Your task to perform on an android device: Open calendar and show me the fourth week of next month Image 0: 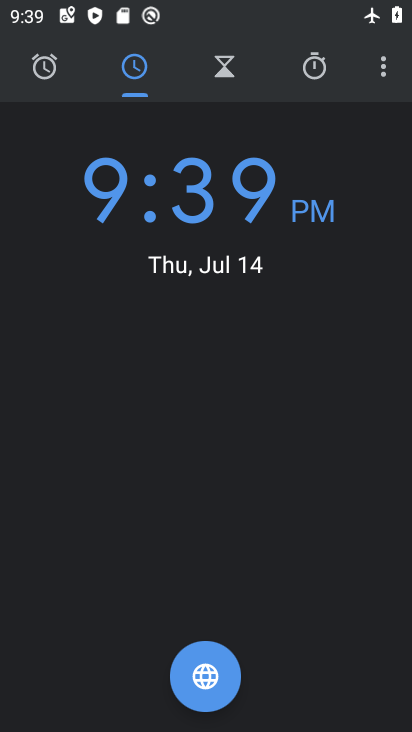
Step 0: press home button
Your task to perform on an android device: Open calendar and show me the fourth week of next month Image 1: 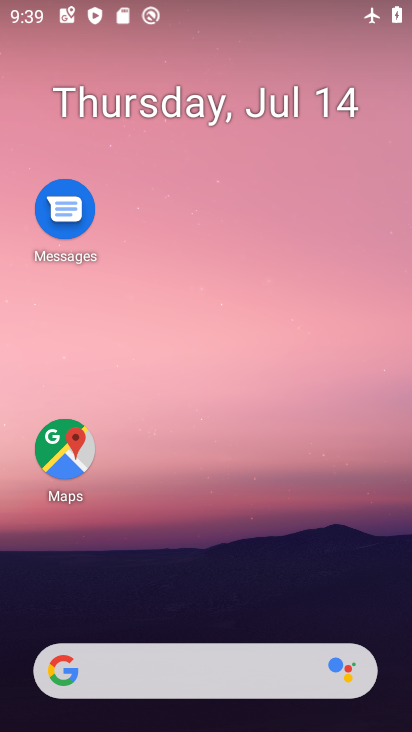
Step 1: drag from (198, 613) to (125, 121)
Your task to perform on an android device: Open calendar and show me the fourth week of next month Image 2: 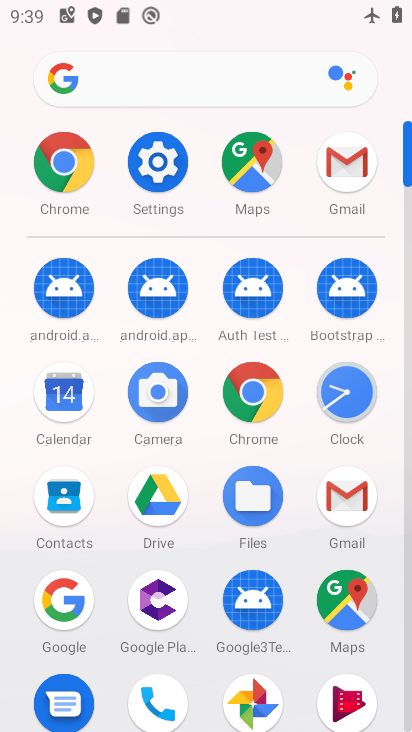
Step 2: click (157, 143)
Your task to perform on an android device: Open calendar and show me the fourth week of next month Image 3: 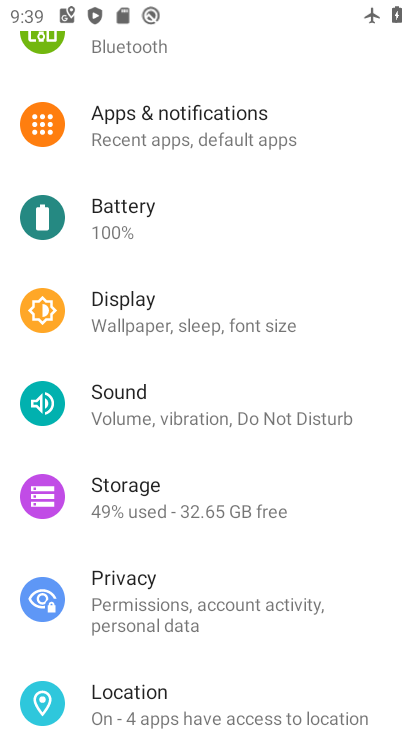
Step 3: press home button
Your task to perform on an android device: Open calendar and show me the fourth week of next month Image 4: 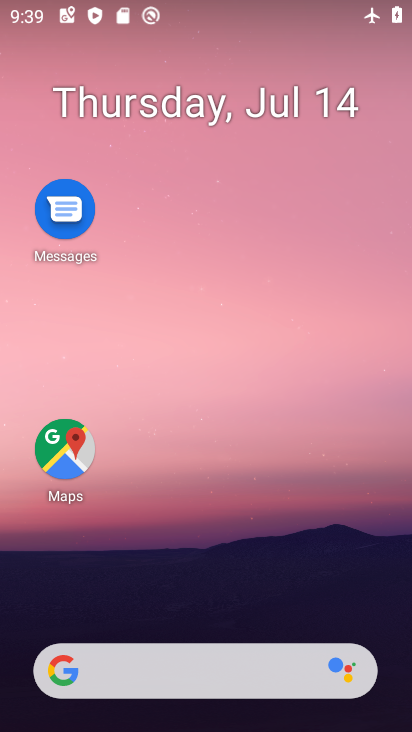
Step 4: drag from (217, 626) to (184, 15)
Your task to perform on an android device: Open calendar and show me the fourth week of next month Image 5: 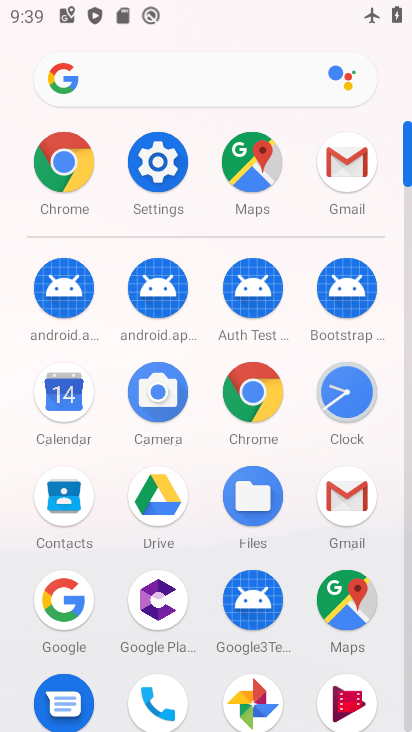
Step 5: click (52, 392)
Your task to perform on an android device: Open calendar and show me the fourth week of next month Image 6: 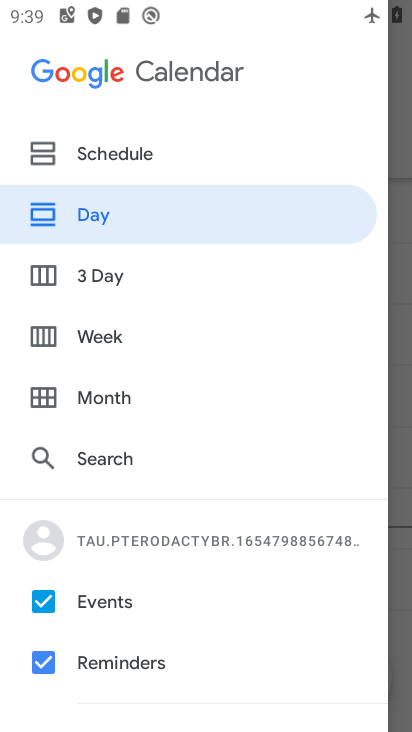
Step 6: click (83, 346)
Your task to perform on an android device: Open calendar and show me the fourth week of next month Image 7: 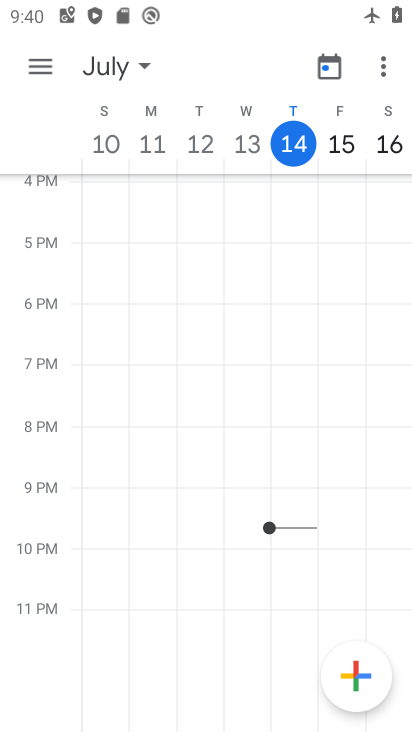
Step 7: drag from (355, 152) to (68, 92)
Your task to perform on an android device: Open calendar and show me the fourth week of next month Image 8: 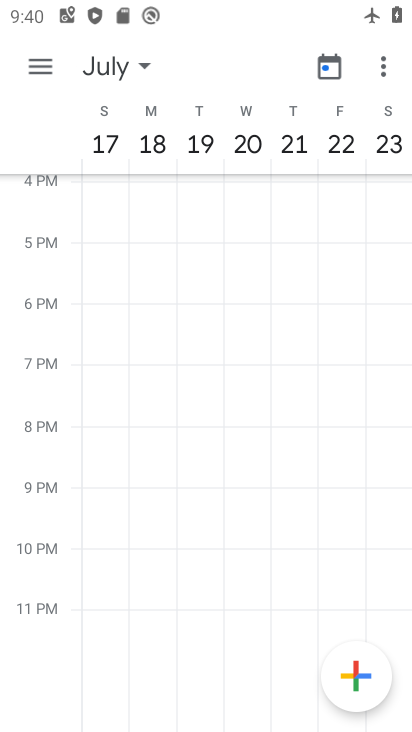
Step 8: drag from (365, 134) to (106, 118)
Your task to perform on an android device: Open calendar and show me the fourth week of next month Image 9: 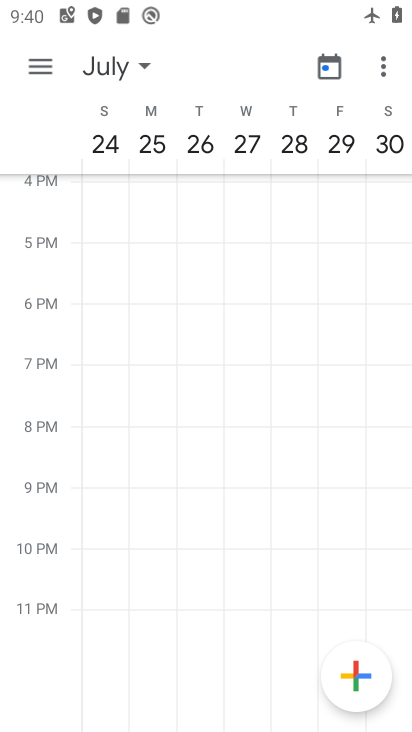
Step 9: drag from (348, 124) to (12, 111)
Your task to perform on an android device: Open calendar and show me the fourth week of next month Image 10: 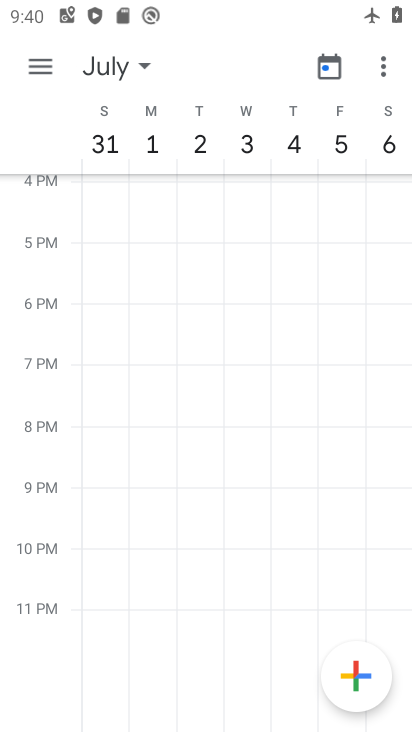
Step 10: drag from (391, 138) to (87, 124)
Your task to perform on an android device: Open calendar and show me the fourth week of next month Image 11: 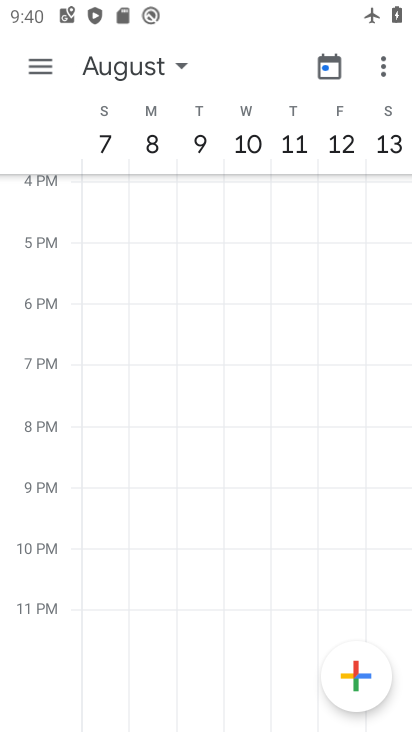
Step 11: click (284, 95)
Your task to perform on an android device: Open calendar and show me the fourth week of next month Image 12: 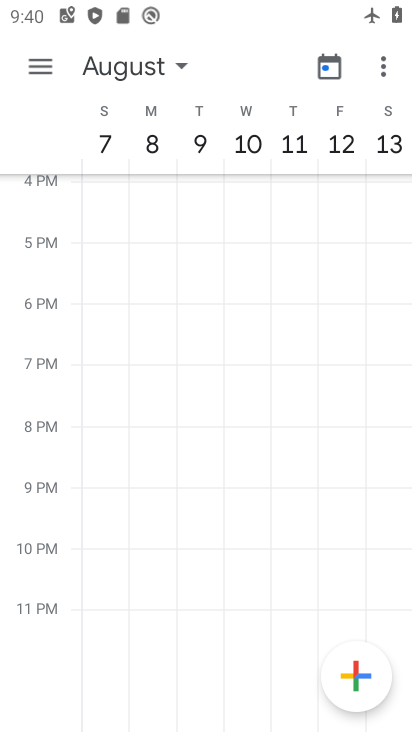
Step 12: task complete